Your task to perform on an android device: turn on the 24-hour format for clock Image 0: 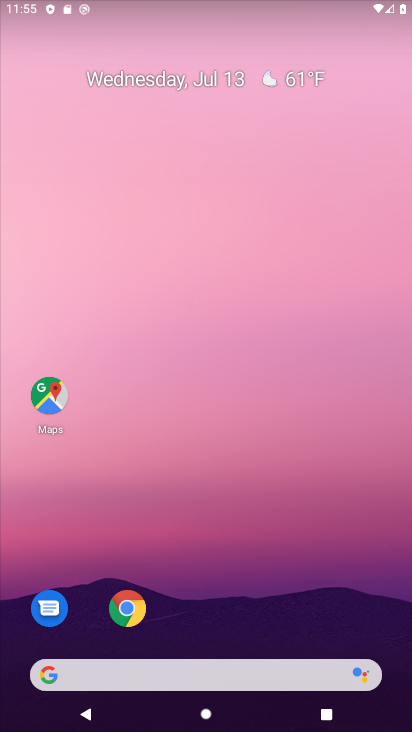
Step 0: click (173, 143)
Your task to perform on an android device: turn on the 24-hour format for clock Image 1: 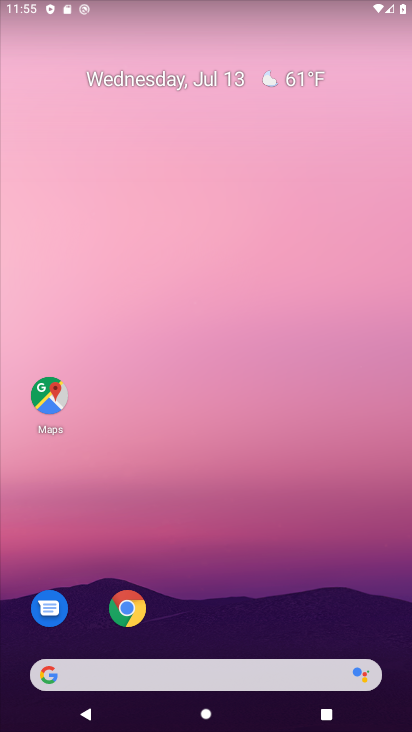
Step 1: press home button
Your task to perform on an android device: turn on the 24-hour format for clock Image 2: 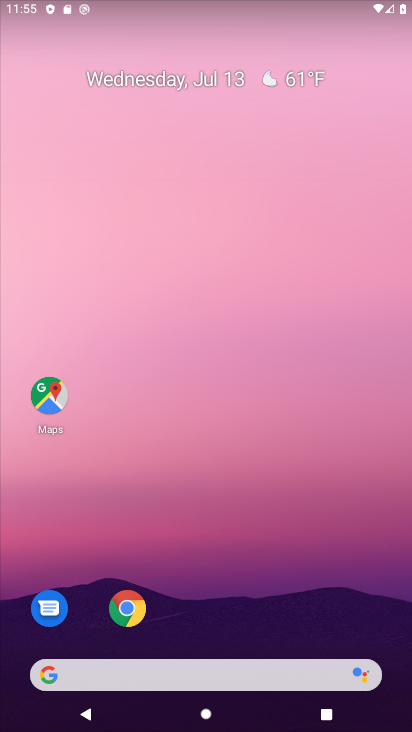
Step 2: drag from (176, 588) to (191, 14)
Your task to perform on an android device: turn on the 24-hour format for clock Image 3: 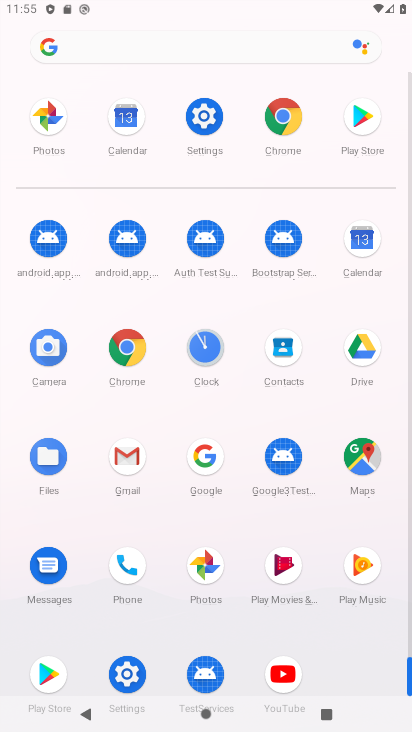
Step 3: click (205, 348)
Your task to perform on an android device: turn on the 24-hour format for clock Image 4: 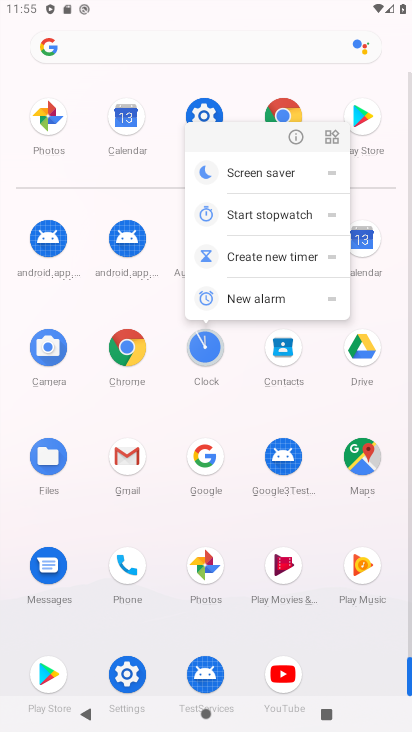
Step 4: click (296, 134)
Your task to perform on an android device: turn on the 24-hour format for clock Image 5: 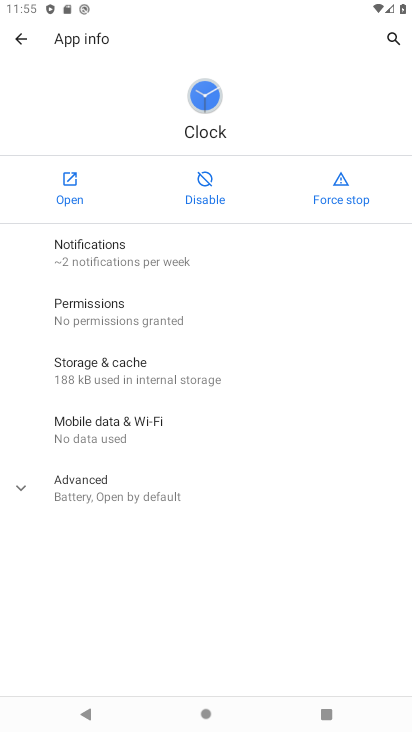
Step 5: click (70, 183)
Your task to perform on an android device: turn on the 24-hour format for clock Image 6: 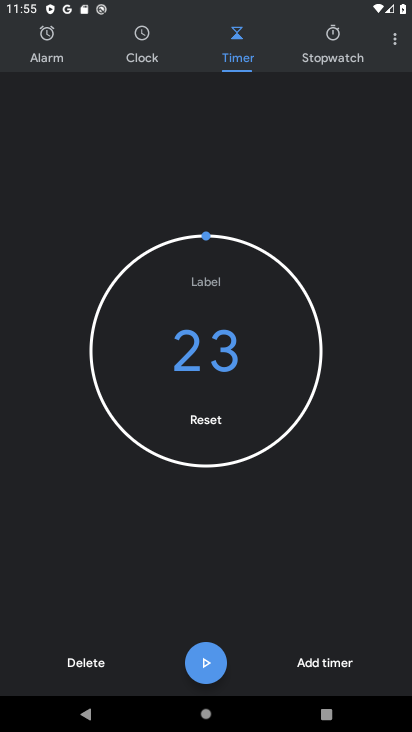
Step 6: click (394, 38)
Your task to perform on an android device: turn on the 24-hour format for clock Image 7: 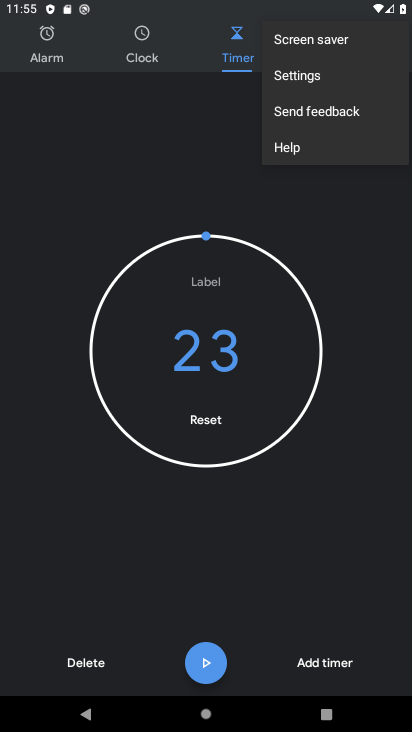
Step 7: click (307, 76)
Your task to perform on an android device: turn on the 24-hour format for clock Image 8: 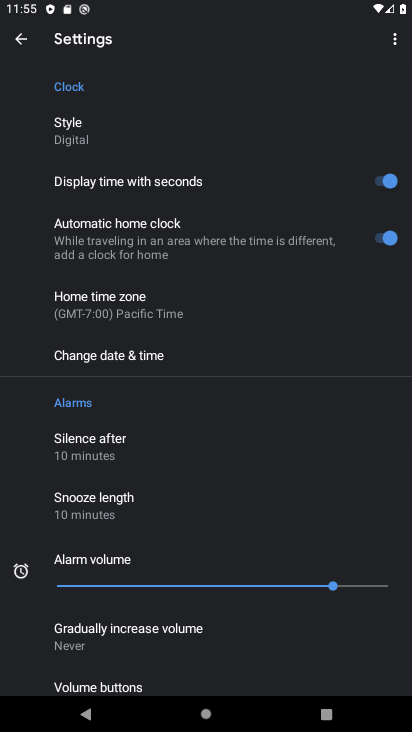
Step 8: click (158, 324)
Your task to perform on an android device: turn on the 24-hour format for clock Image 9: 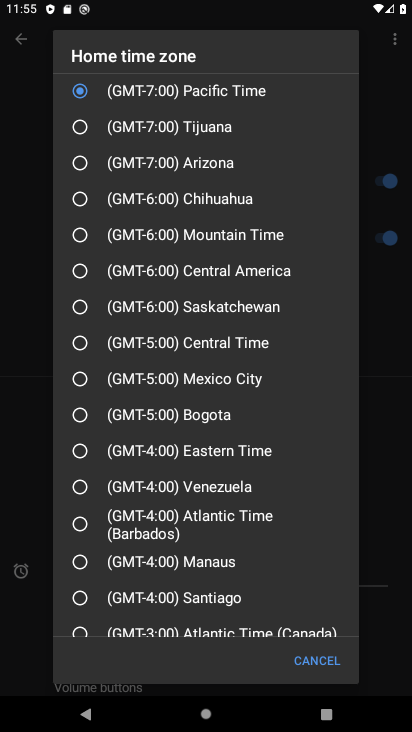
Step 9: click (332, 670)
Your task to perform on an android device: turn on the 24-hour format for clock Image 10: 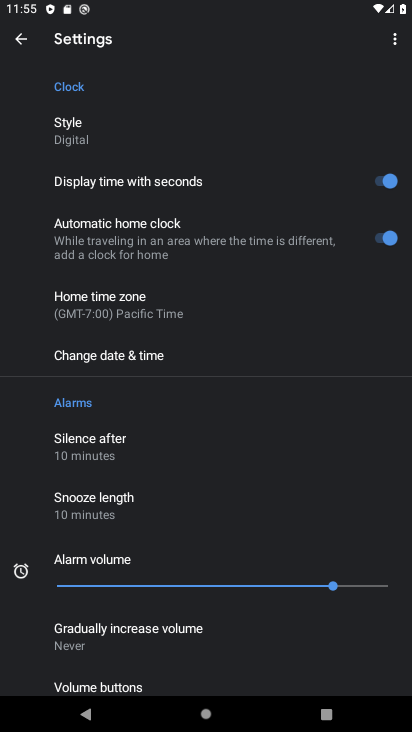
Step 10: click (164, 354)
Your task to perform on an android device: turn on the 24-hour format for clock Image 11: 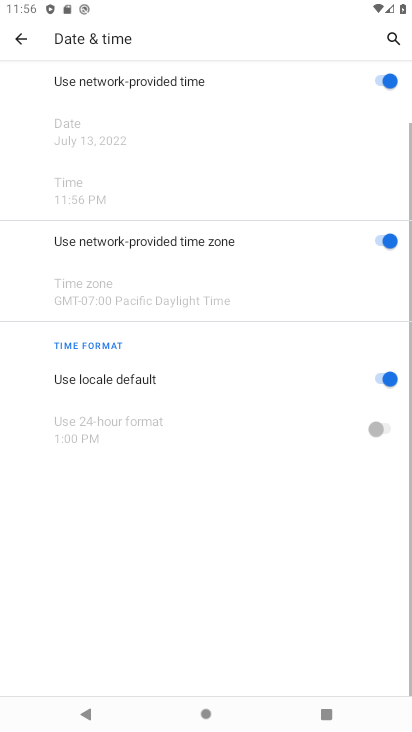
Step 11: drag from (232, 535) to (253, 407)
Your task to perform on an android device: turn on the 24-hour format for clock Image 12: 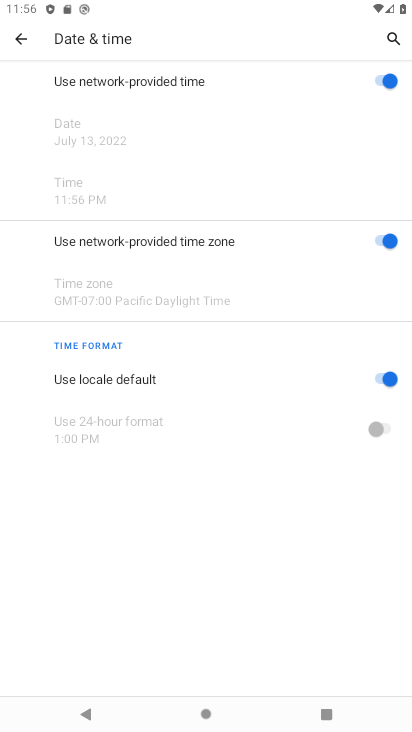
Step 12: click (380, 381)
Your task to perform on an android device: turn on the 24-hour format for clock Image 13: 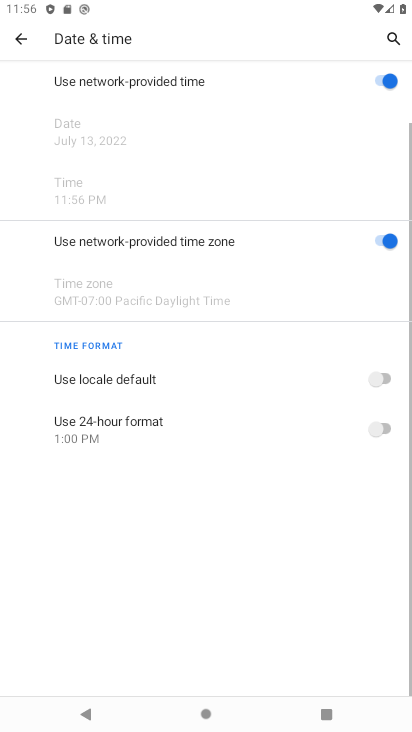
Step 13: click (366, 431)
Your task to perform on an android device: turn on the 24-hour format for clock Image 14: 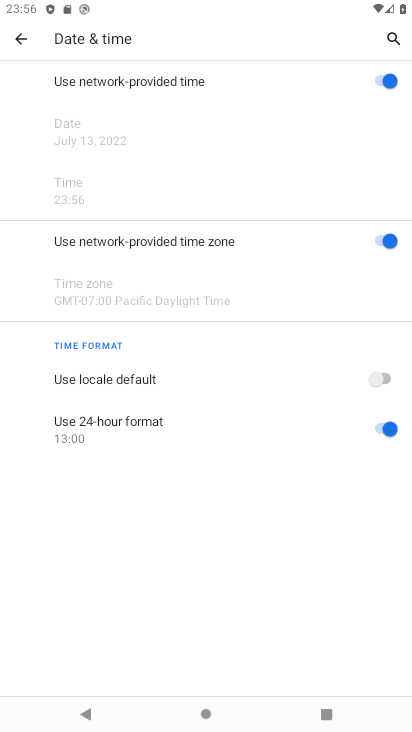
Step 14: task complete